Your task to perform on an android device: Where can I buy a nice beach bag? Image 0: 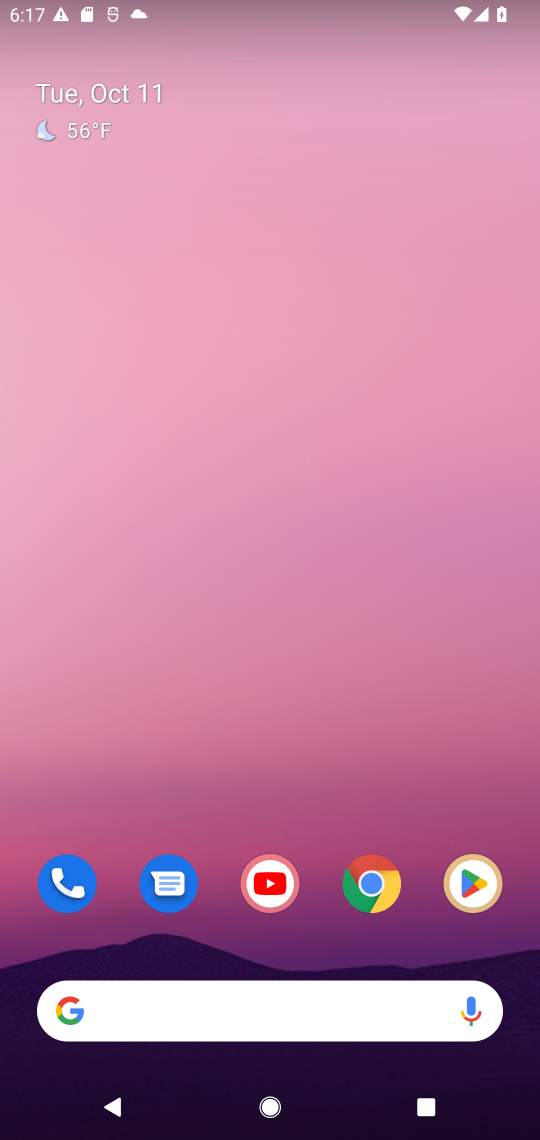
Step 0: drag from (338, 947) to (333, 138)
Your task to perform on an android device: Where can I buy a nice beach bag? Image 1: 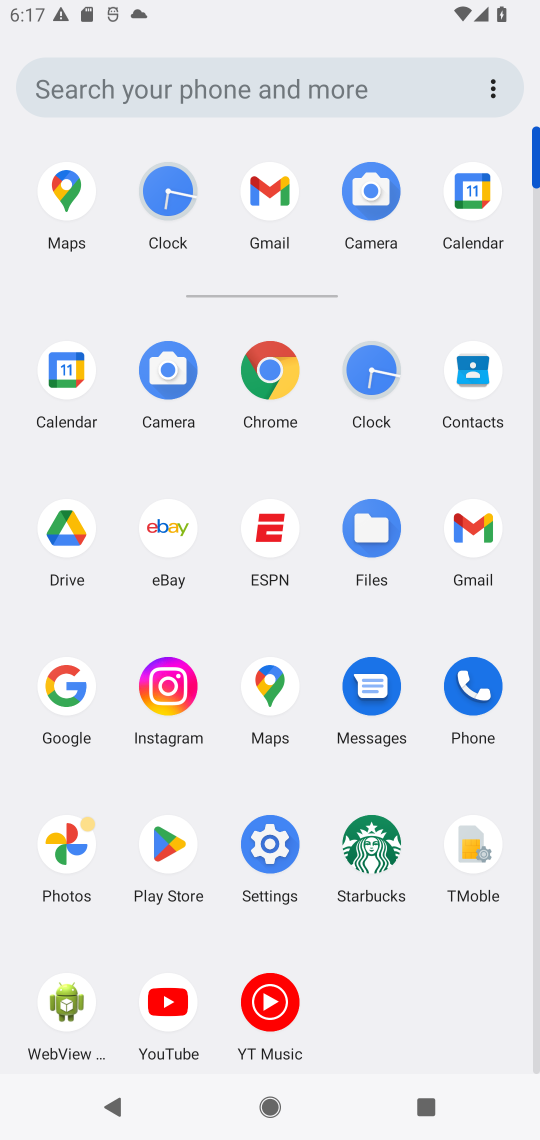
Step 1: click (262, 370)
Your task to perform on an android device: Where can I buy a nice beach bag? Image 2: 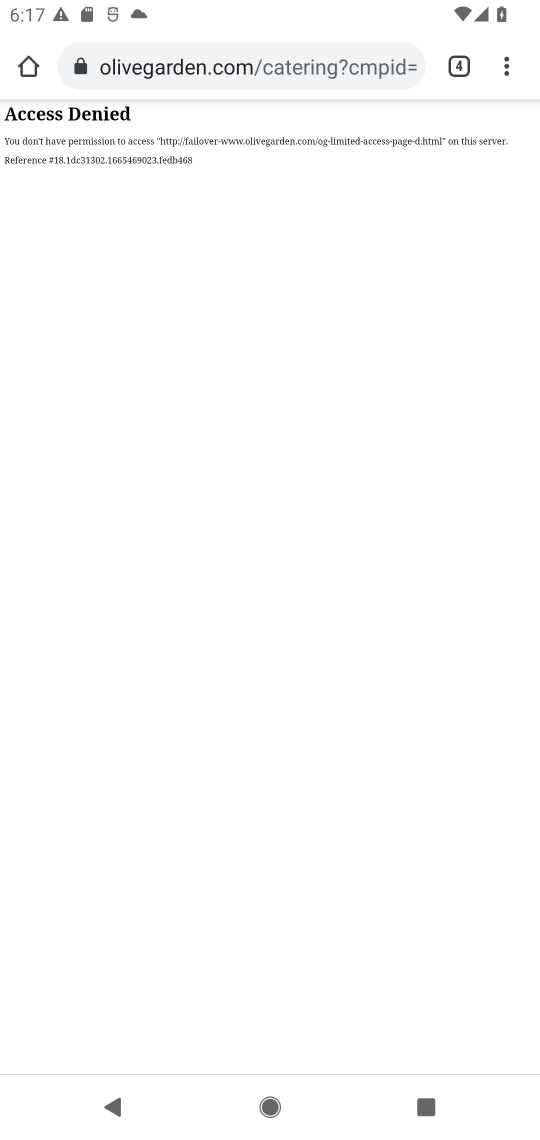
Step 2: click (239, 65)
Your task to perform on an android device: Where can I buy a nice beach bag? Image 3: 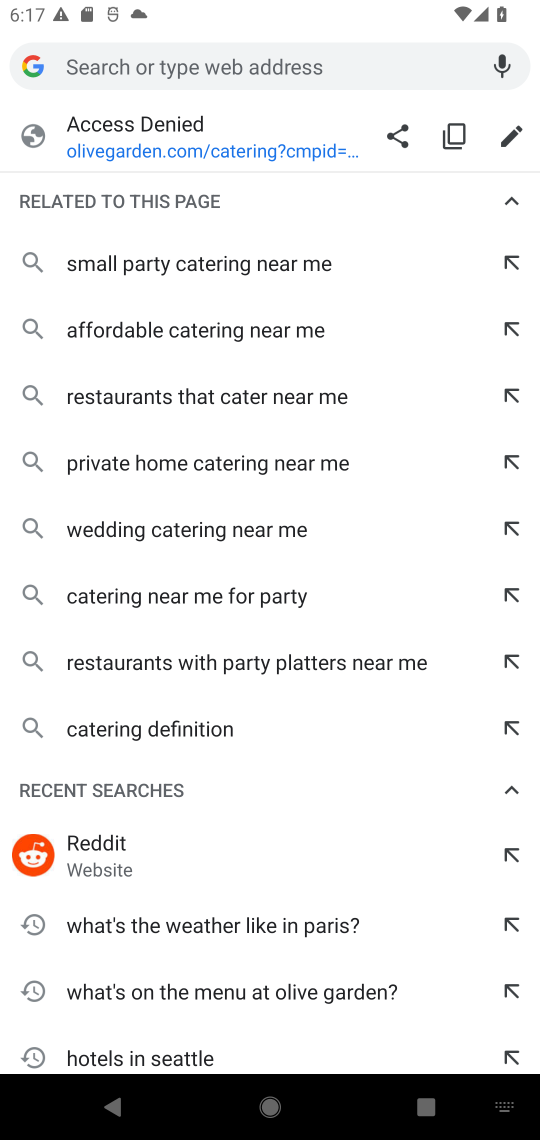
Step 3: type "Where can I buy a nice beach bag/"
Your task to perform on an android device: Where can I buy a nice beach bag? Image 4: 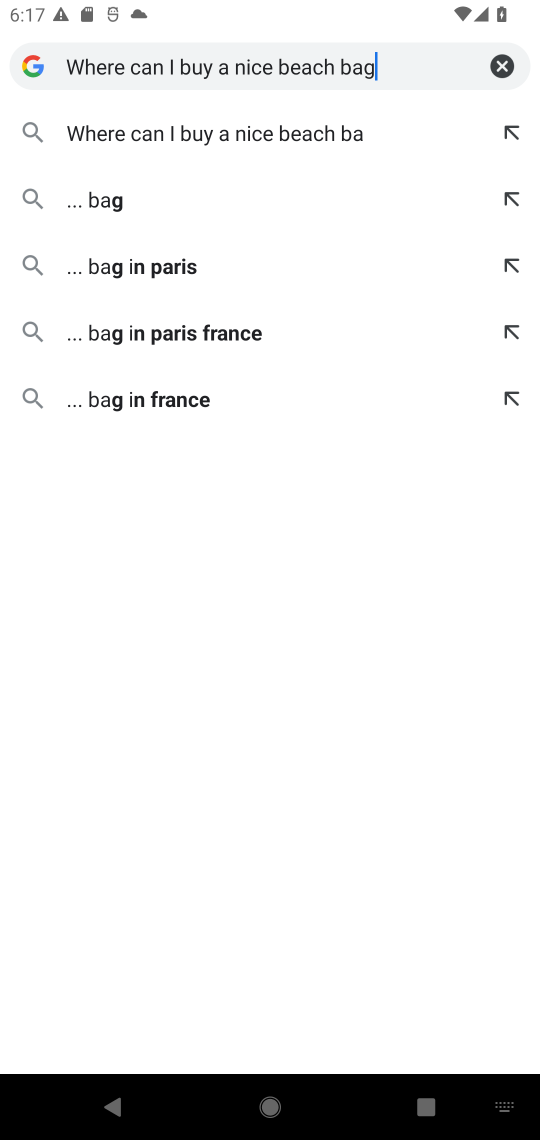
Step 4: press enter
Your task to perform on an android device: Where can I buy a nice beach bag? Image 5: 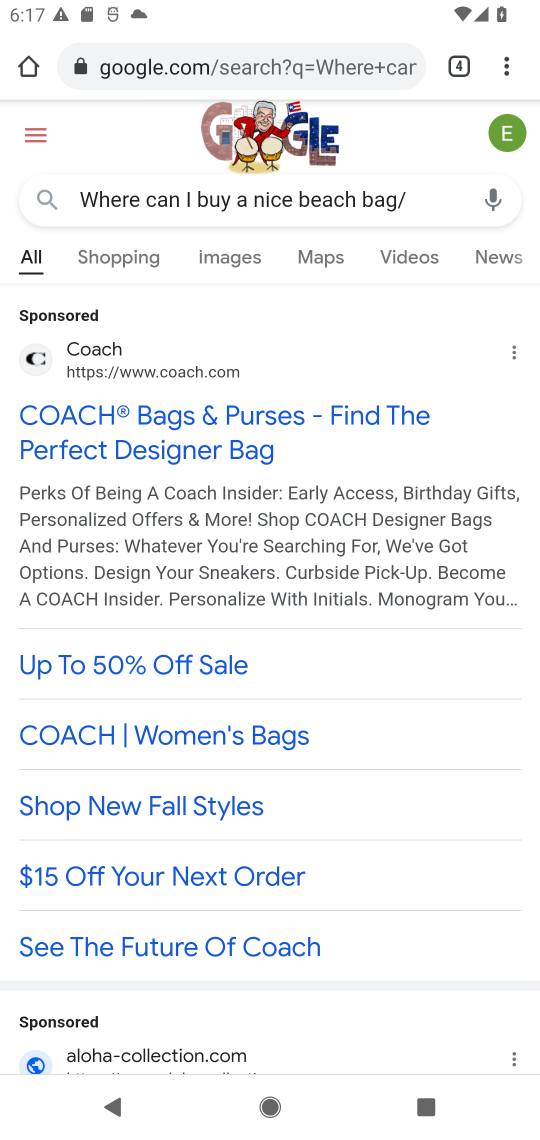
Step 5: task complete